Your task to perform on an android device: Search for logitech g502 on walmart.com, select the first entry, and add it to the cart. Image 0: 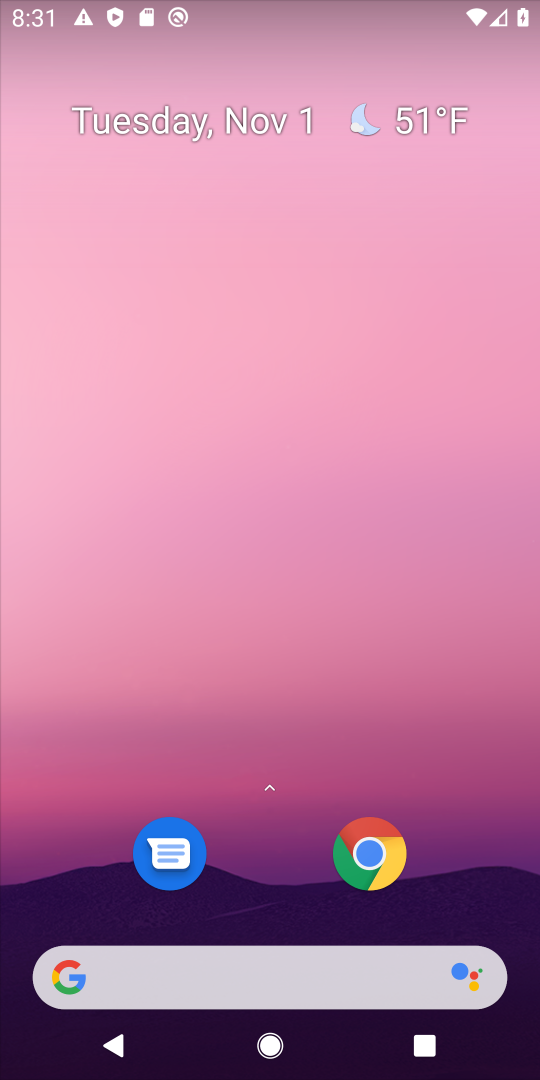
Step 0: click (230, 988)
Your task to perform on an android device: Search for logitech g502 on walmart.com, select the first entry, and add it to the cart. Image 1: 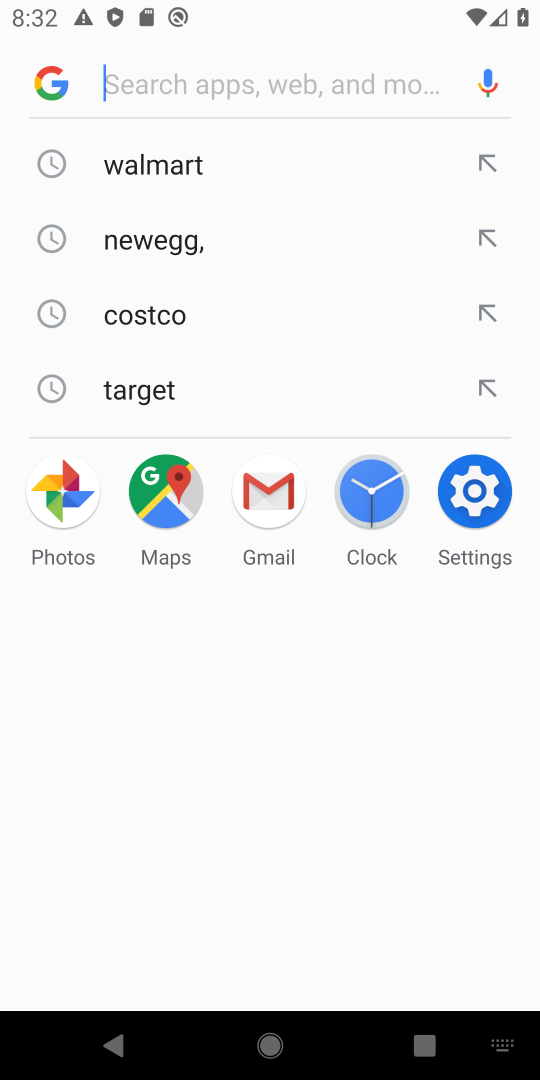
Step 1: click (149, 185)
Your task to perform on an android device: Search for logitech g502 on walmart.com, select the first entry, and add it to the cart. Image 2: 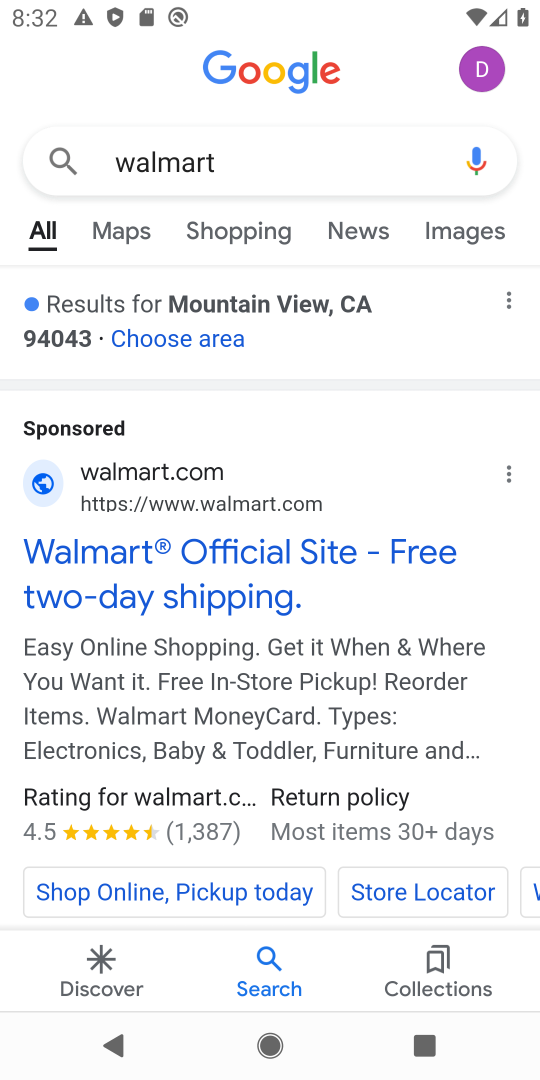
Step 2: click (180, 570)
Your task to perform on an android device: Search for logitech g502 on walmart.com, select the first entry, and add it to the cart. Image 3: 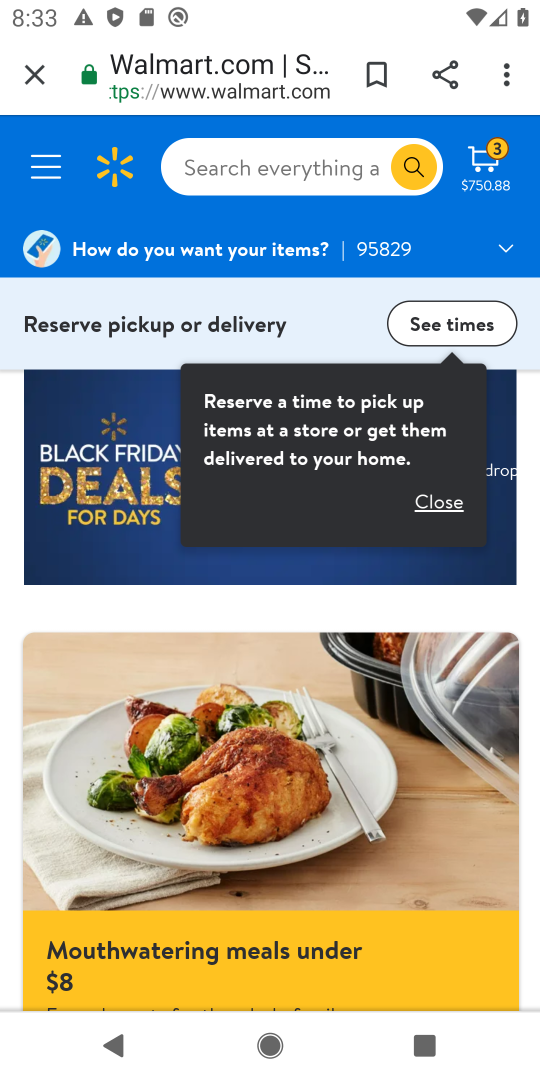
Step 3: task complete